Your task to perform on an android device: Go to Google Image 0: 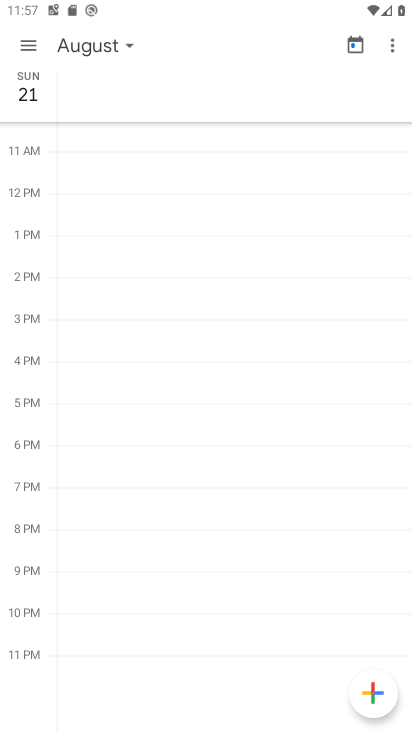
Step 0: press home button
Your task to perform on an android device: Go to Google Image 1: 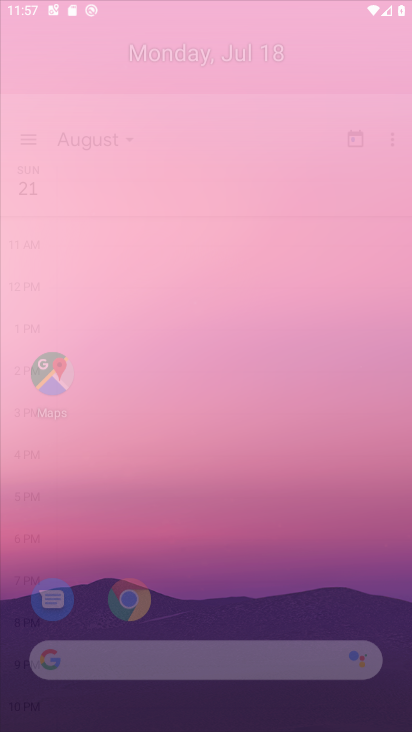
Step 1: press home button
Your task to perform on an android device: Go to Google Image 2: 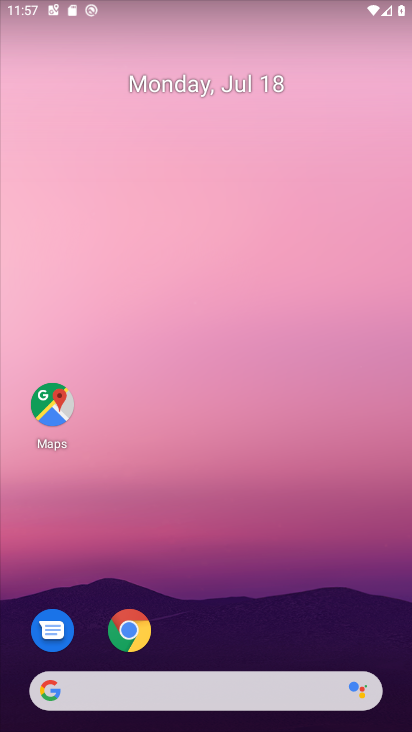
Step 2: click (47, 689)
Your task to perform on an android device: Go to Google Image 3: 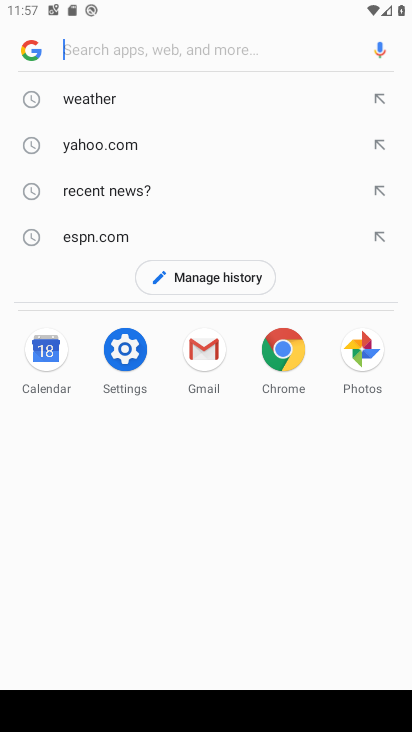
Step 3: click (30, 51)
Your task to perform on an android device: Go to Google Image 4: 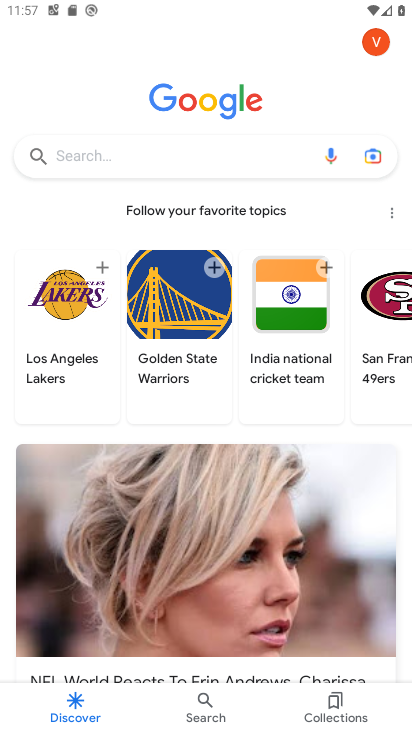
Step 4: task complete